Your task to perform on an android device: Open internet settings Image 0: 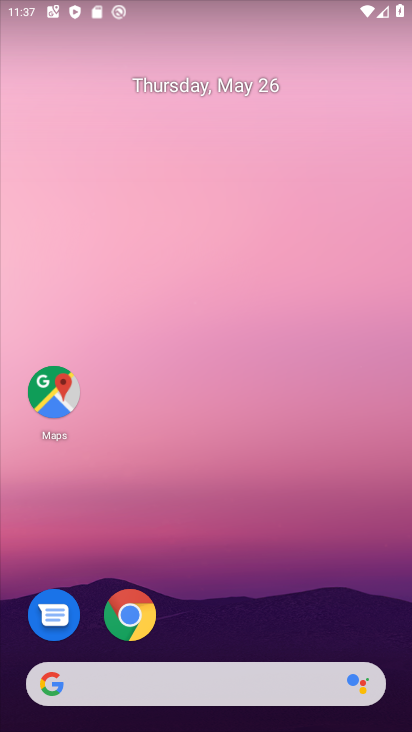
Step 0: drag from (229, 621) to (171, 176)
Your task to perform on an android device: Open internet settings Image 1: 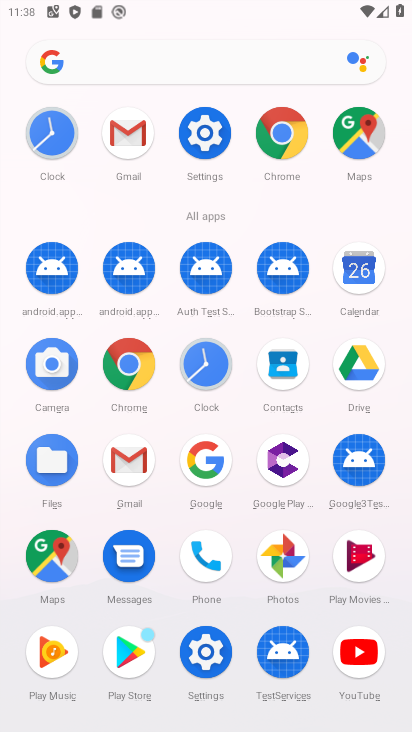
Step 1: click (199, 143)
Your task to perform on an android device: Open internet settings Image 2: 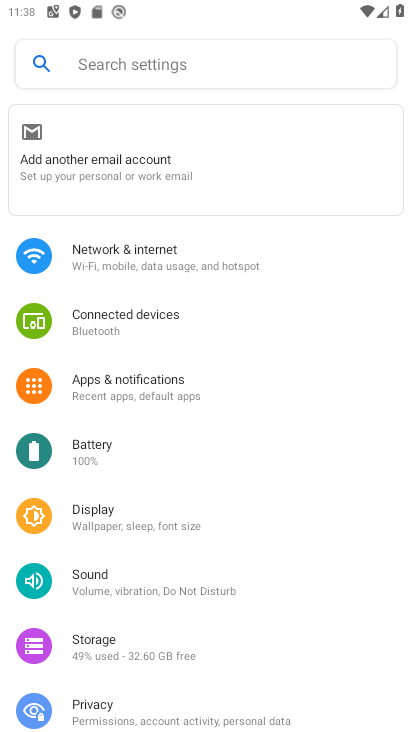
Step 2: click (180, 263)
Your task to perform on an android device: Open internet settings Image 3: 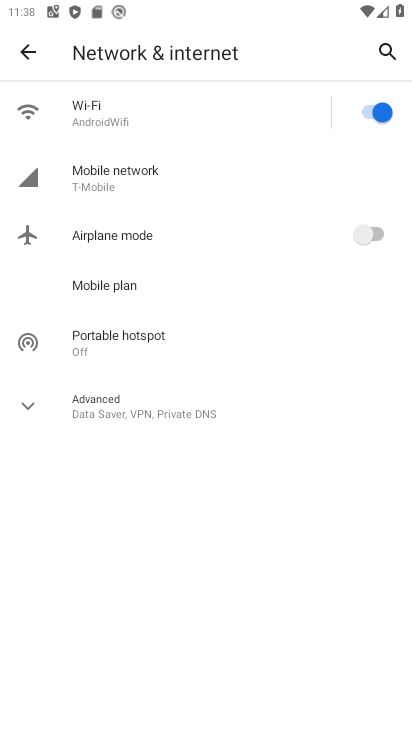
Step 3: task complete